Your task to perform on an android device: toggle data saver in the chrome app Image 0: 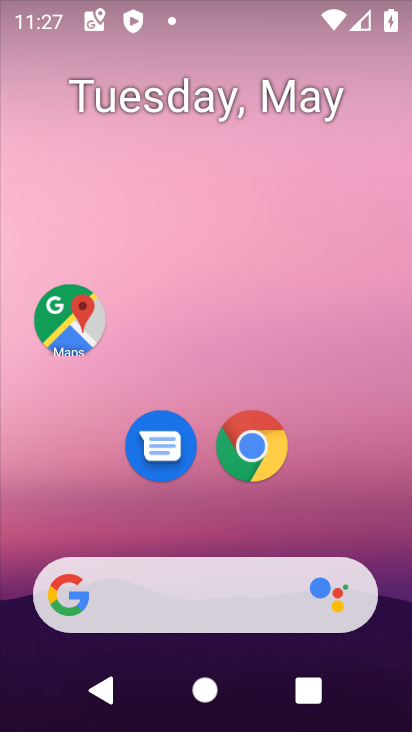
Step 0: click (250, 452)
Your task to perform on an android device: toggle data saver in the chrome app Image 1: 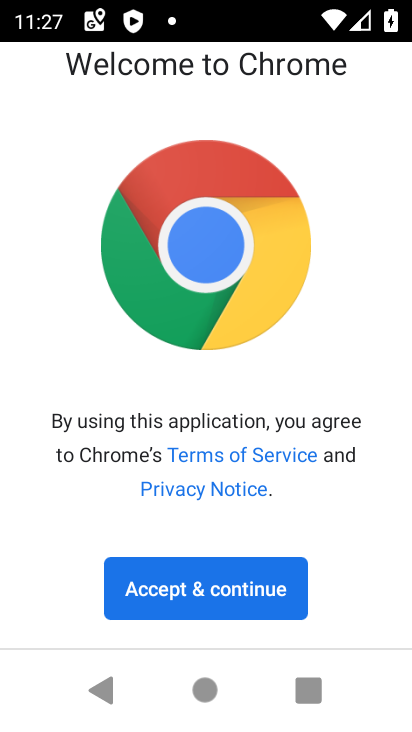
Step 1: click (203, 591)
Your task to perform on an android device: toggle data saver in the chrome app Image 2: 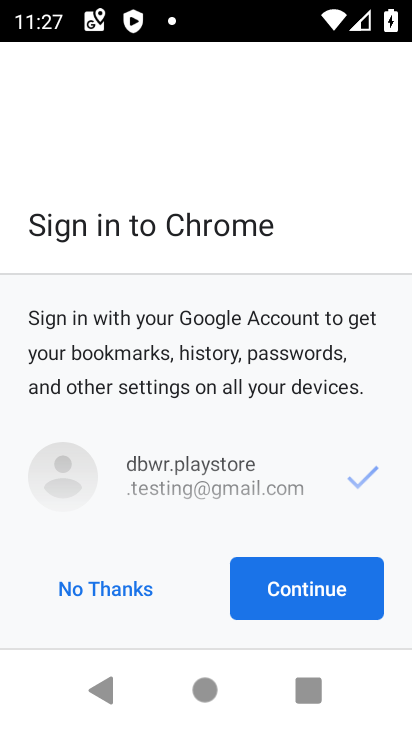
Step 2: click (331, 595)
Your task to perform on an android device: toggle data saver in the chrome app Image 3: 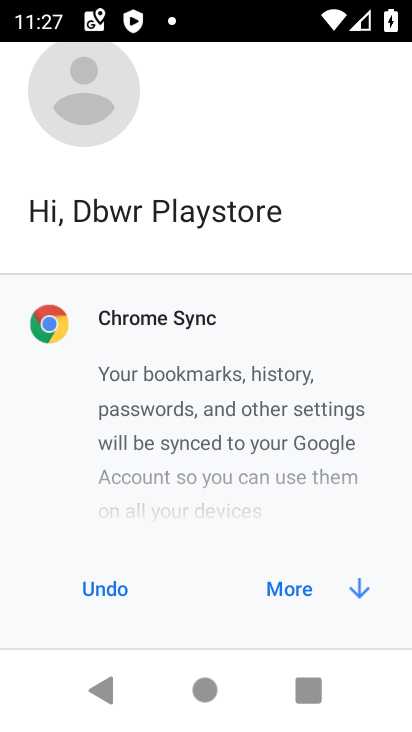
Step 3: click (300, 590)
Your task to perform on an android device: toggle data saver in the chrome app Image 4: 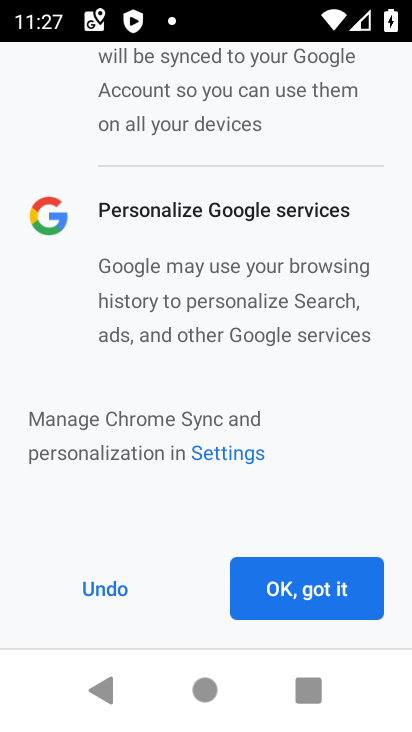
Step 4: click (300, 590)
Your task to perform on an android device: toggle data saver in the chrome app Image 5: 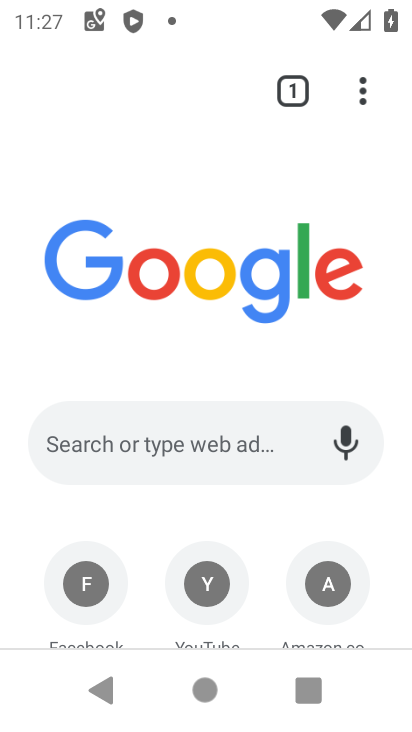
Step 5: click (361, 99)
Your task to perform on an android device: toggle data saver in the chrome app Image 6: 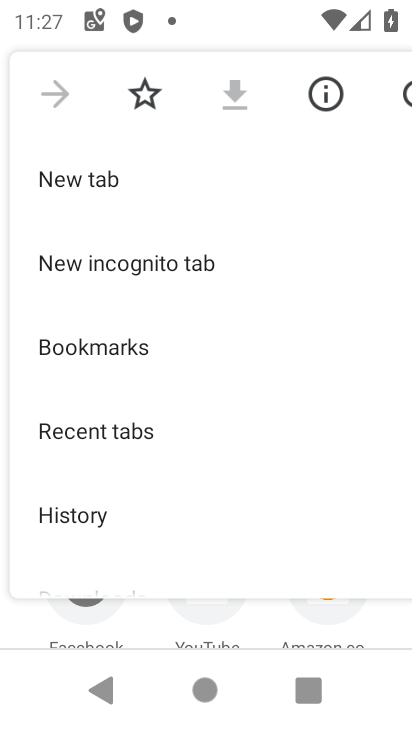
Step 6: drag from (134, 522) to (132, 176)
Your task to perform on an android device: toggle data saver in the chrome app Image 7: 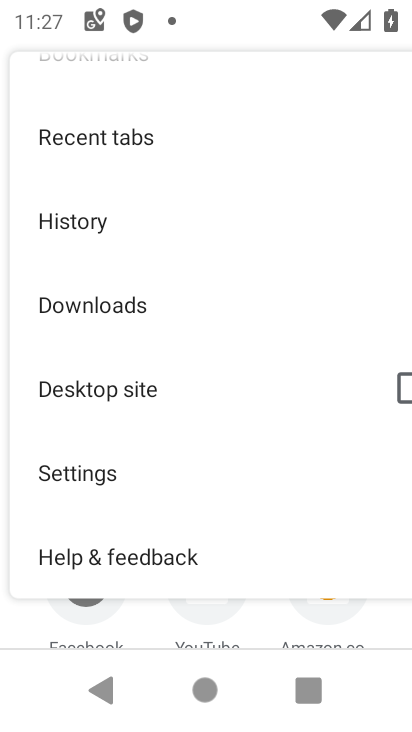
Step 7: drag from (114, 538) to (114, 203)
Your task to perform on an android device: toggle data saver in the chrome app Image 8: 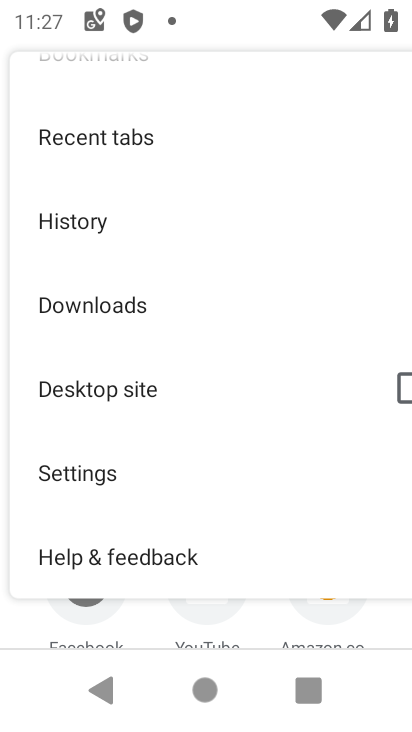
Step 8: click (86, 472)
Your task to perform on an android device: toggle data saver in the chrome app Image 9: 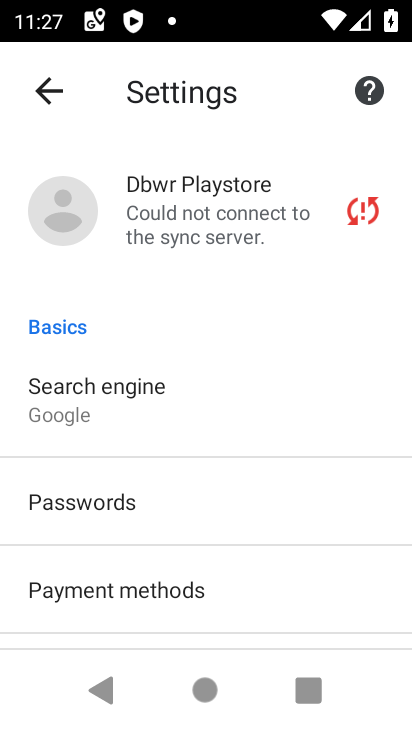
Step 9: drag from (133, 594) to (179, 164)
Your task to perform on an android device: toggle data saver in the chrome app Image 10: 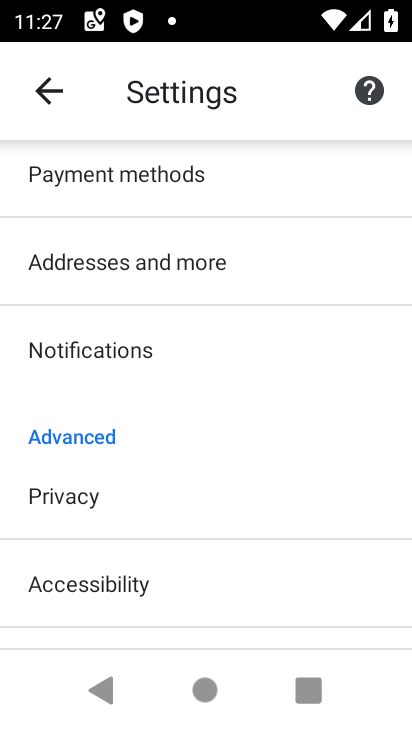
Step 10: drag from (125, 607) to (143, 231)
Your task to perform on an android device: toggle data saver in the chrome app Image 11: 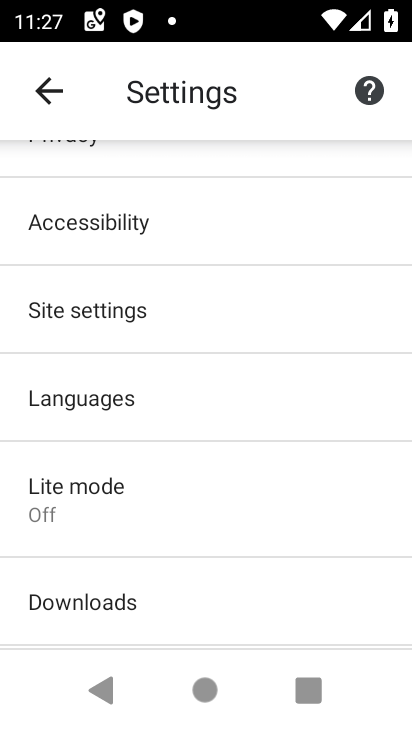
Step 11: click (107, 485)
Your task to perform on an android device: toggle data saver in the chrome app Image 12: 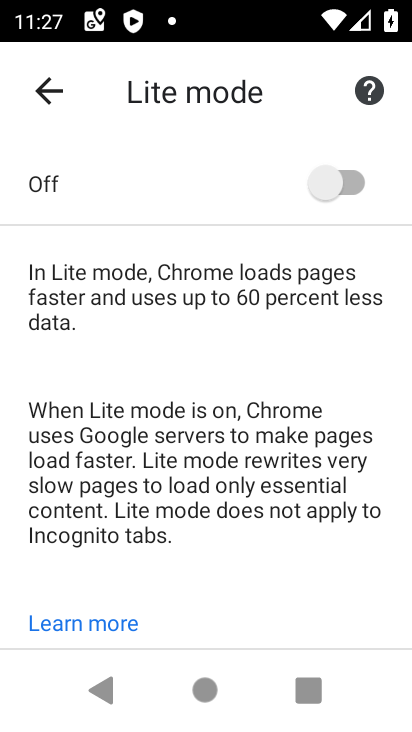
Step 12: click (371, 196)
Your task to perform on an android device: toggle data saver in the chrome app Image 13: 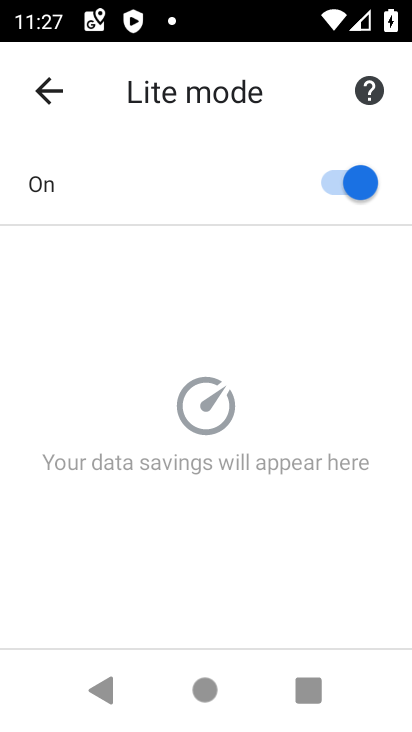
Step 13: task complete